Your task to perform on an android device: stop showing notifications on the lock screen Image 0: 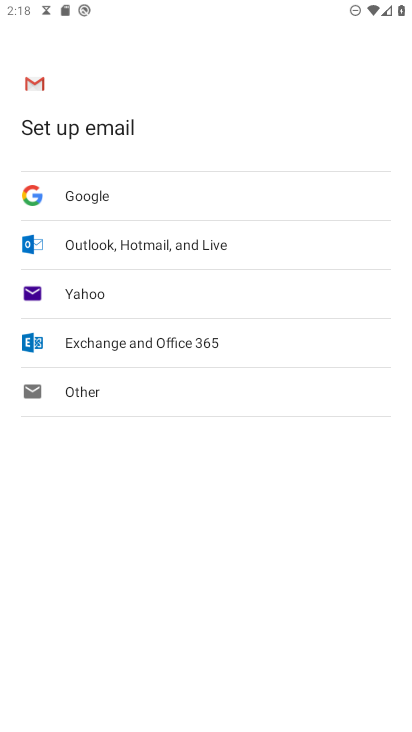
Step 0: press home button
Your task to perform on an android device: stop showing notifications on the lock screen Image 1: 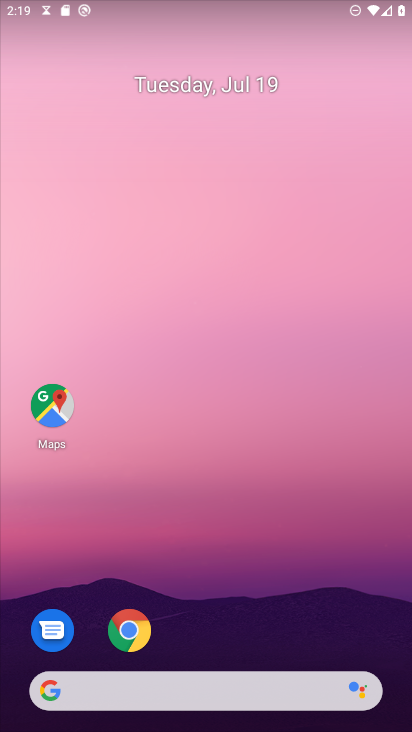
Step 1: drag from (176, 683) to (306, 152)
Your task to perform on an android device: stop showing notifications on the lock screen Image 2: 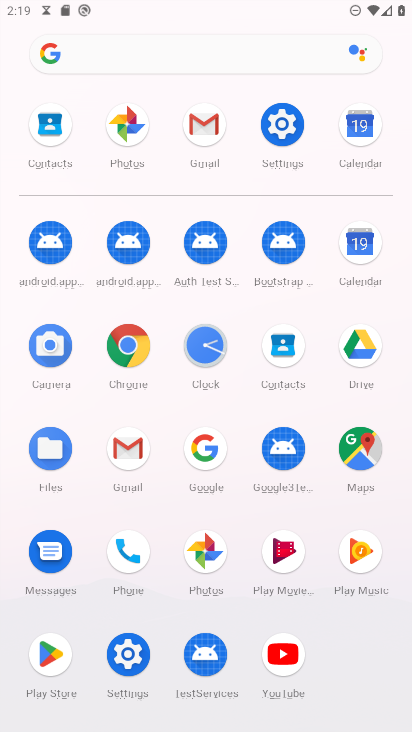
Step 2: click (280, 127)
Your task to perform on an android device: stop showing notifications on the lock screen Image 3: 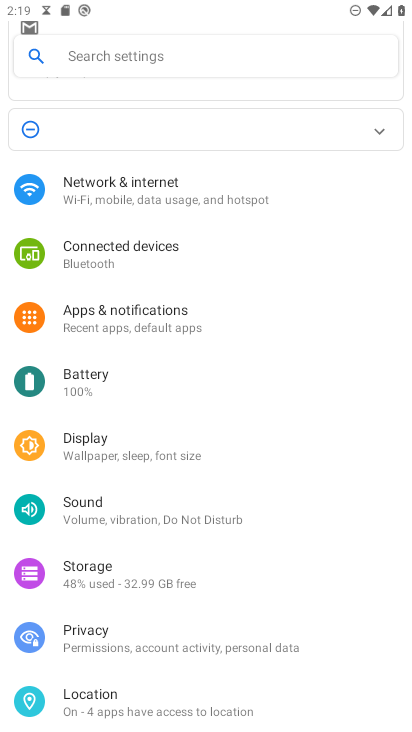
Step 3: click (155, 313)
Your task to perform on an android device: stop showing notifications on the lock screen Image 4: 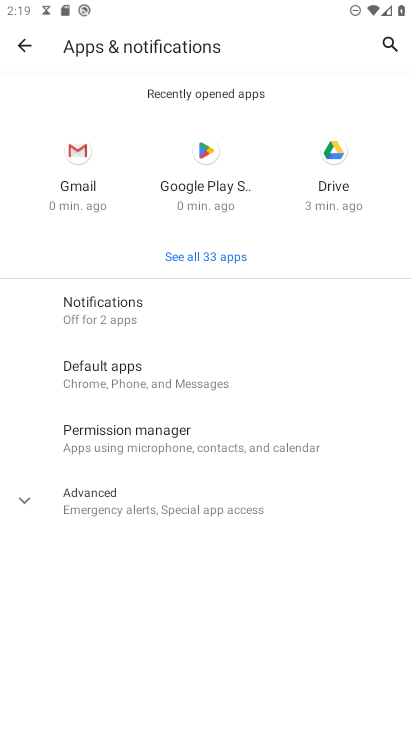
Step 4: click (122, 504)
Your task to perform on an android device: stop showing notifications on the lock screen Image 5: 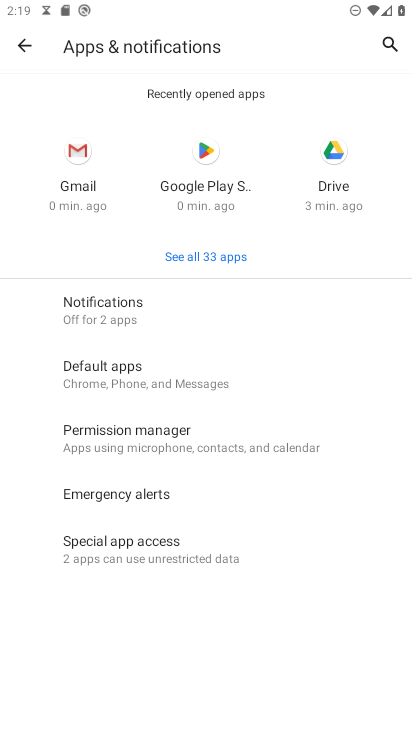
Step 5: click (134, 305)
Your task to perform on an android device: stop showing notifications on the lock screen Image 6: 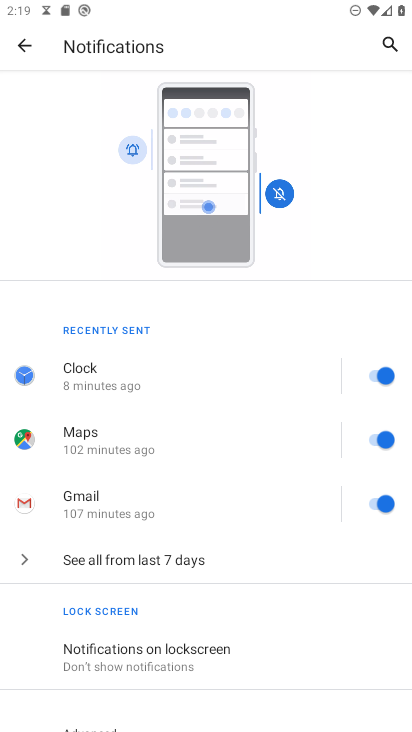
Step 6: drag from (177, 623) to (275, 334)
Your task to perform on an android device: stop showing notifications on the lock screen Image 7: 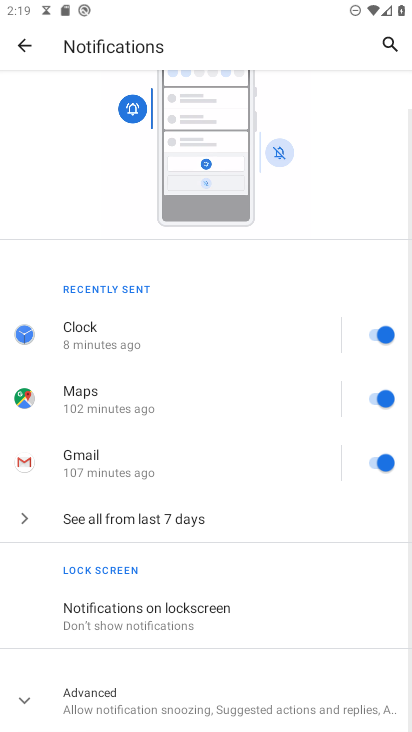
Step 7: click (163, 613)
Your task to perform on an android device: stop showing notifications on the lock screen Image 8: 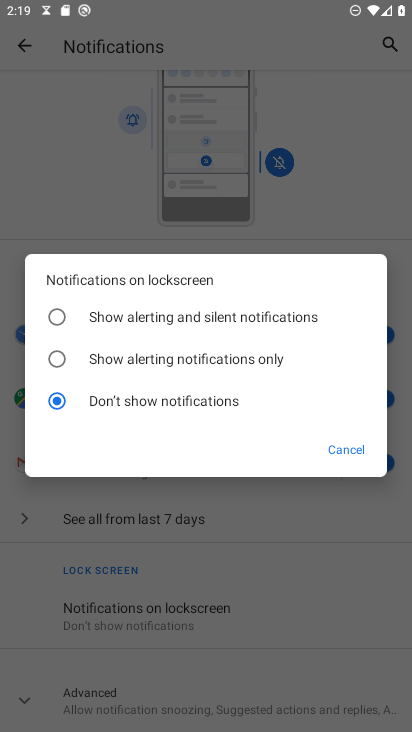
Step 8: task complete